Your task to perform on an android device: When is my next appointment? Image 0: 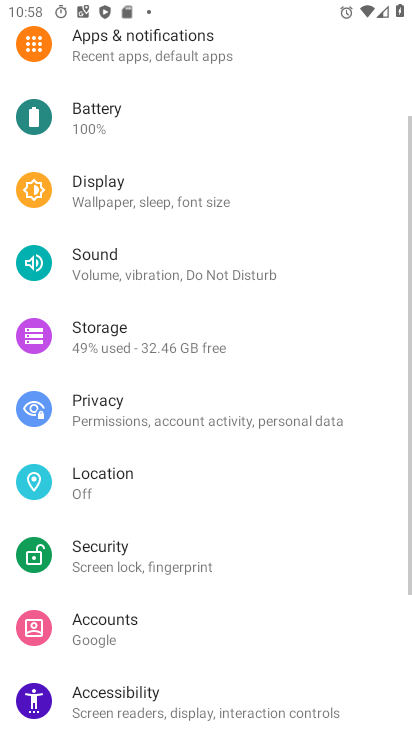
Step 0: press home button
Your task to perform on an android device: When is my next appointment? Image 1: 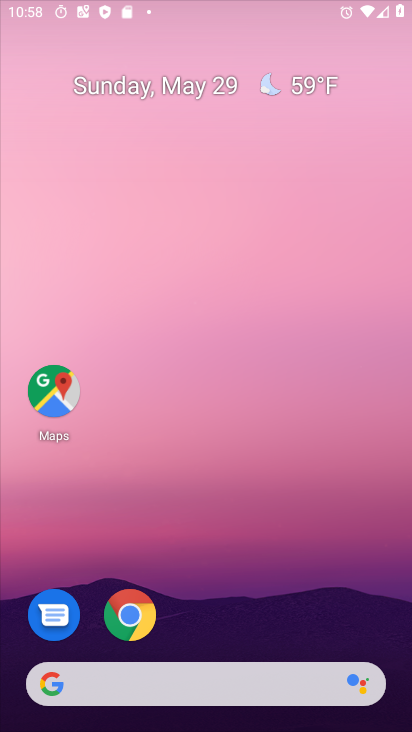
Step 1: drag from (225, 609) to (330, 67)
Your task to perform on an android device: When is my next appointment? Image 2: 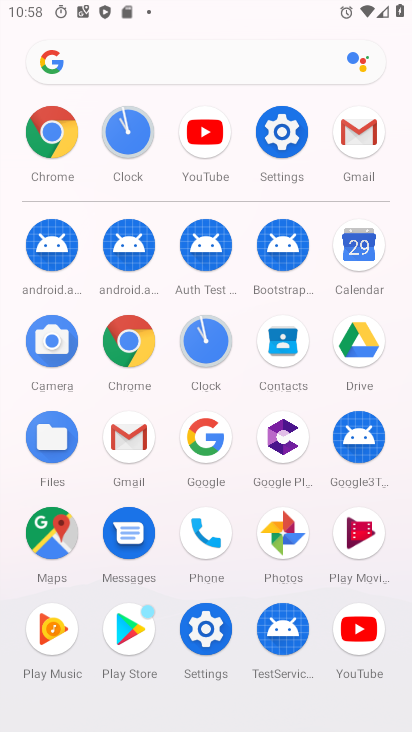
Step 2: click (359, 243)
Your task to perform on an android device: When is my next appointment? Image 3: 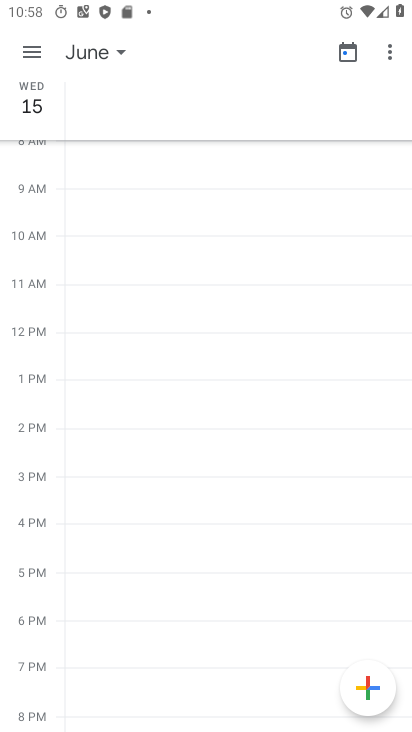
Step 3: click (108, 55)
Your task to perform on an android device: When is my next appointment? Image 4: 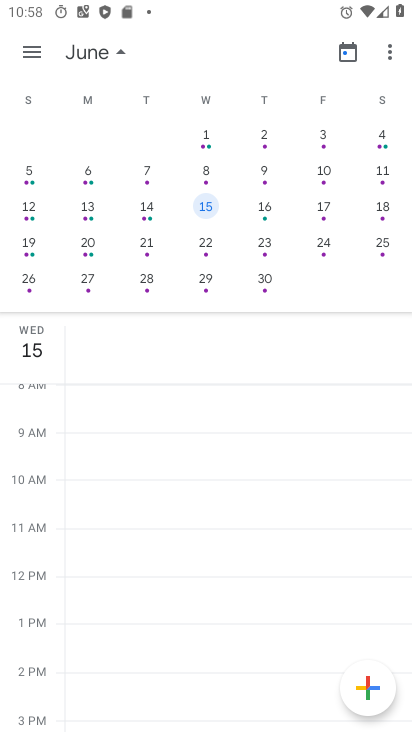
Step 4: drag from (72, 262) to (409, 263)
Your task to perform on an android device: When is my next appointment? Image 5: 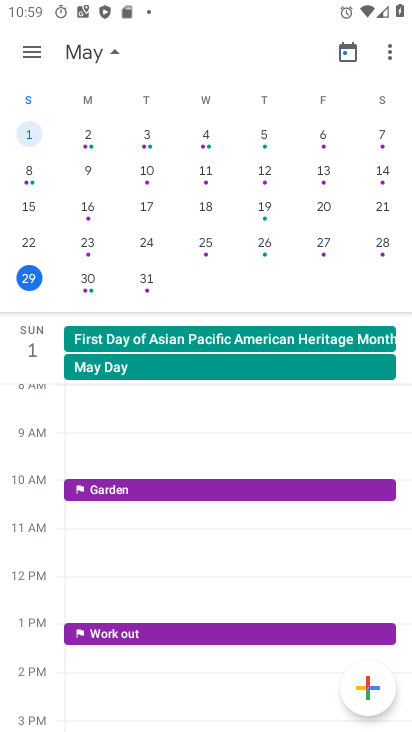
Step 5: click (81, 274)
Your task to perform on an android device: When is my next appointment? Image 6: 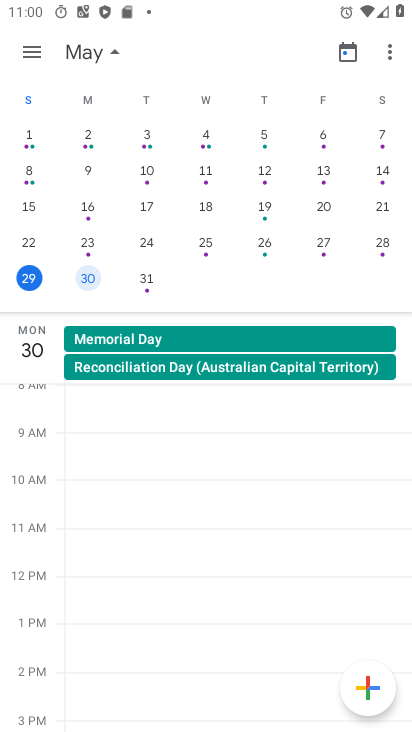
Step 6: task complete